Your task to perform on an android device: turn on improve location accuracy Image 0: 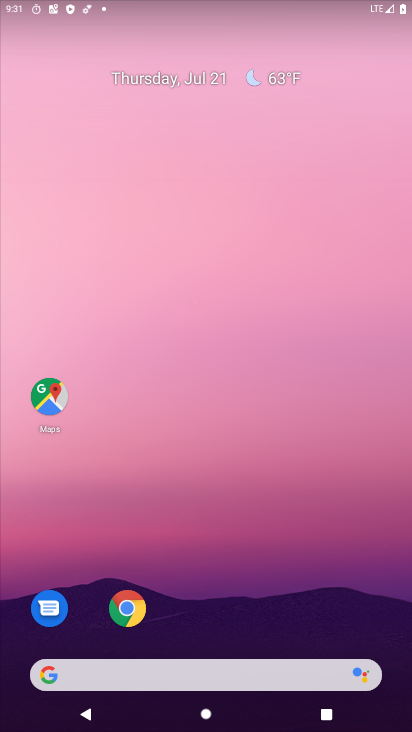
Step 0: press home button
Your task to perform on an android device: turn on improve location accuracy Image 1: 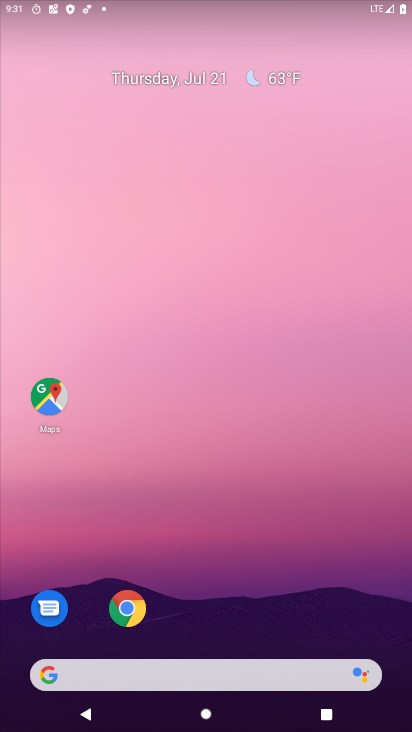
Step 1: drag from (243, 595) to (302, 96)
Your task to perform on an android device: turn on improve location accuracy Image 2: 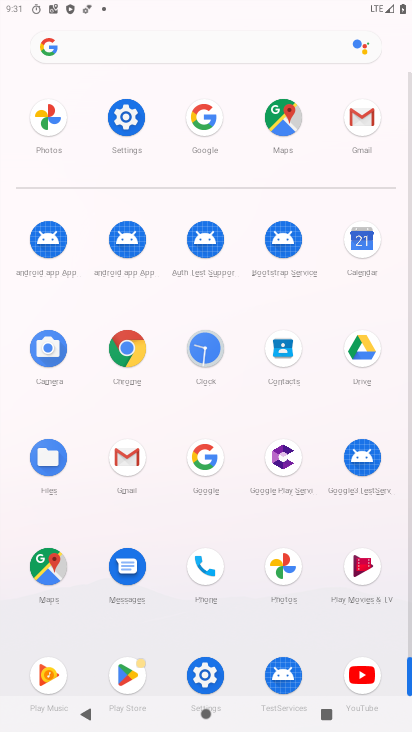
Step 2: click (140, 129)
Your task to perform on an android device: turn on improve location accuracy Image 3: 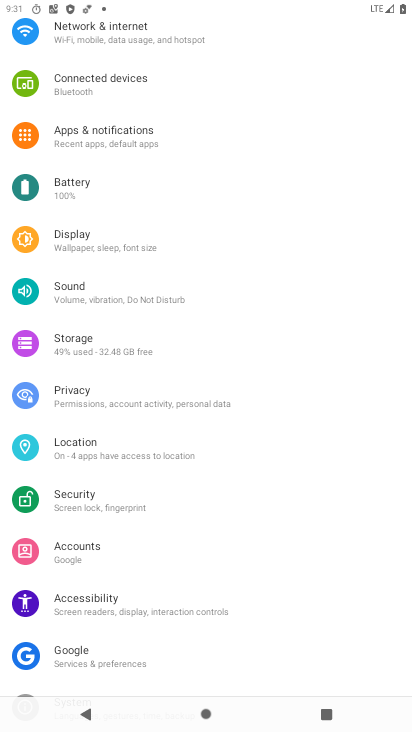
Step 3: click (91, 450)
Your task to perform on an android device: turn on improve location accuracy Image 4: 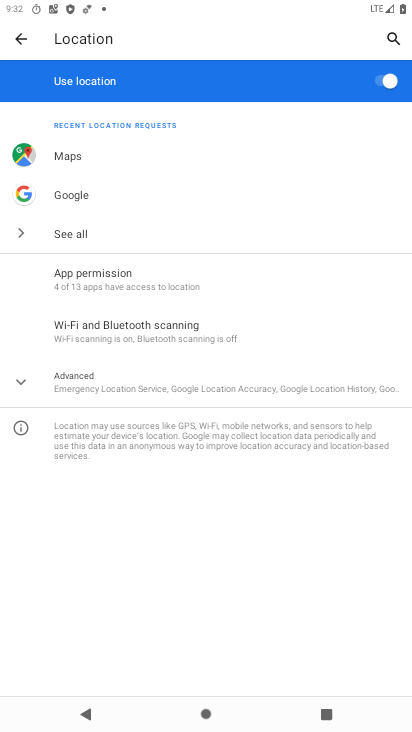
Step 4: click (118, 383)
Your task to perform on an android device: turn on improve location accuracy Image 5: 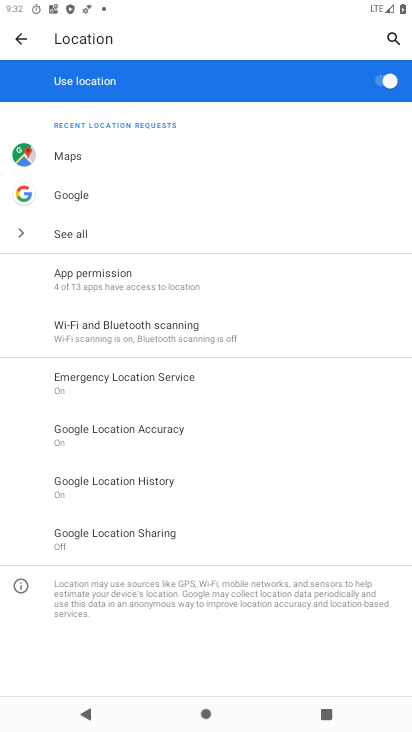
Step 5: click (124, 428)
Your task to perform on an android device: turn on improve location accuracy Image 6: 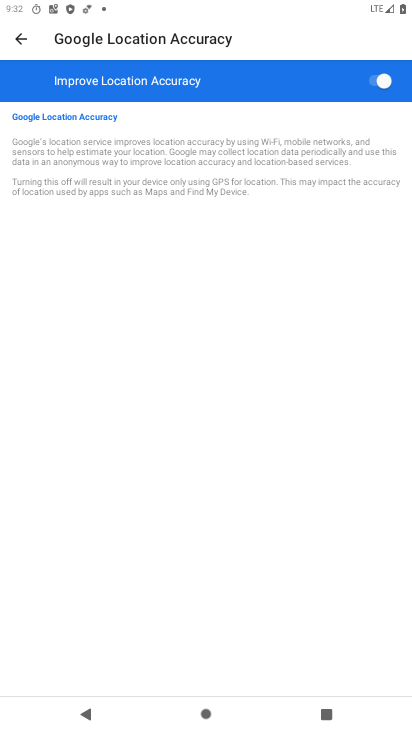
Step 6: task complete